Your task to perform on an android device: turn on location history Image 0: 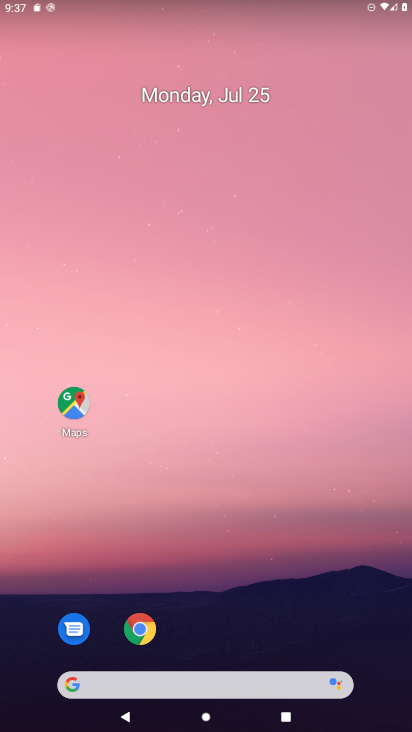
Step 0: click (72, 409)
Your task to perform on an android device: turn on location history Image 1: 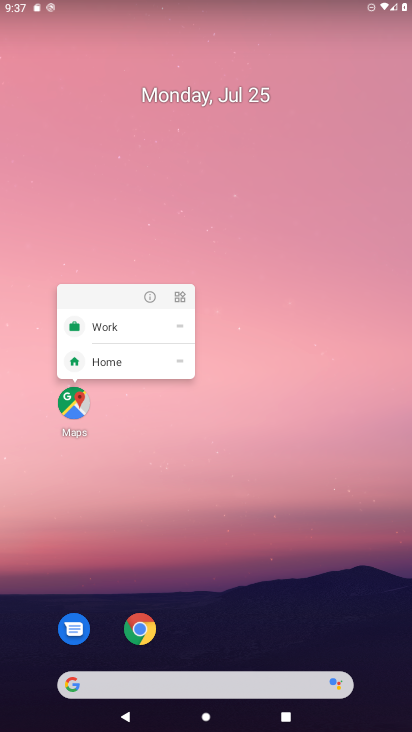
Step 1: click (72, 409)
Your task to perform on an android device: turn on location history Image 2: 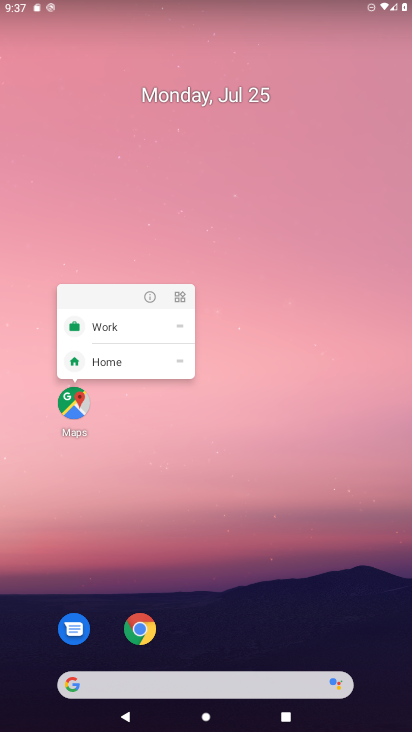
Step 2: click (72, 409)
Your task to perform on an android device: turn on location history Image 3: 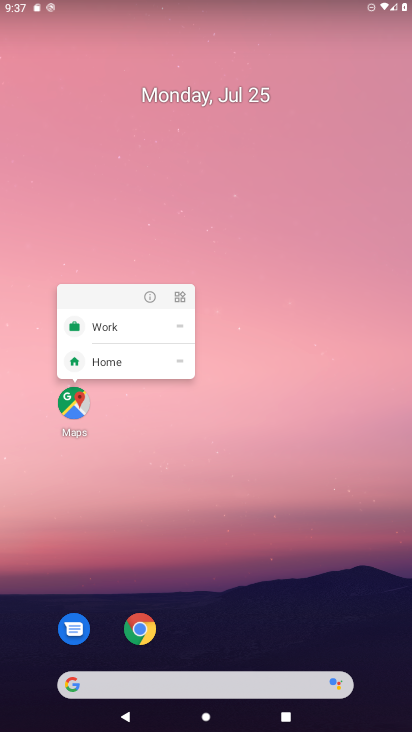
Step 3: click (72, 408)
Your task to perform on an android device: turn on location history Image 4: 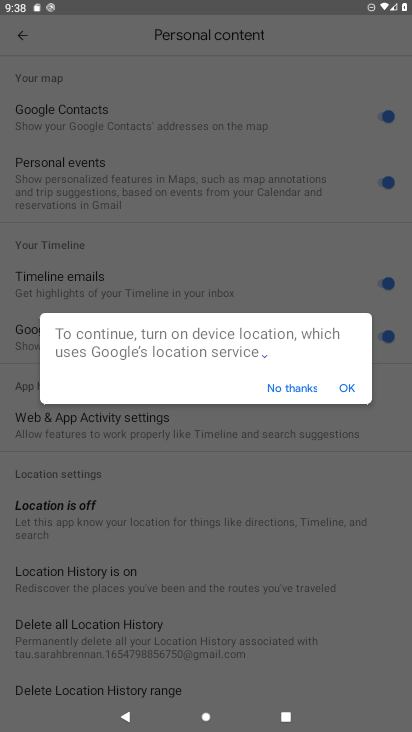
Step 4: click (280, 389)
Your task to perform on an android device: turn on location history Image 5: 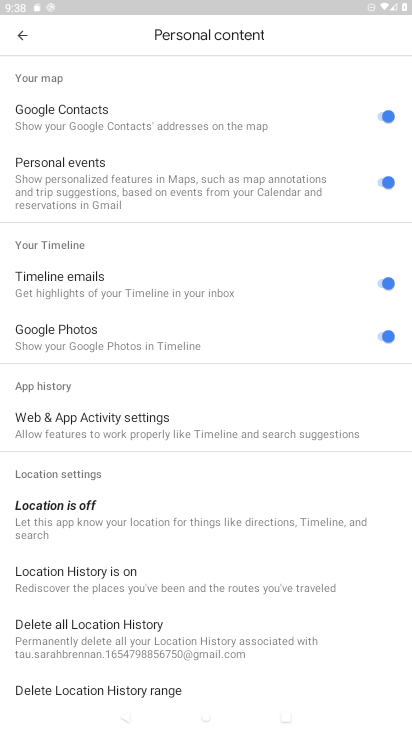
Step 5: click (68, 585)
Your task to perform on an android device: turn on location history Image 6: 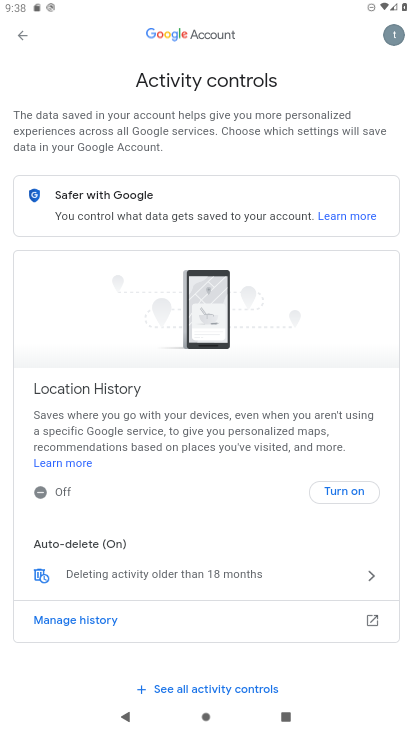
Step 6: click (332, 491)
Your task to perform on an android device: turn on location history Image 7: 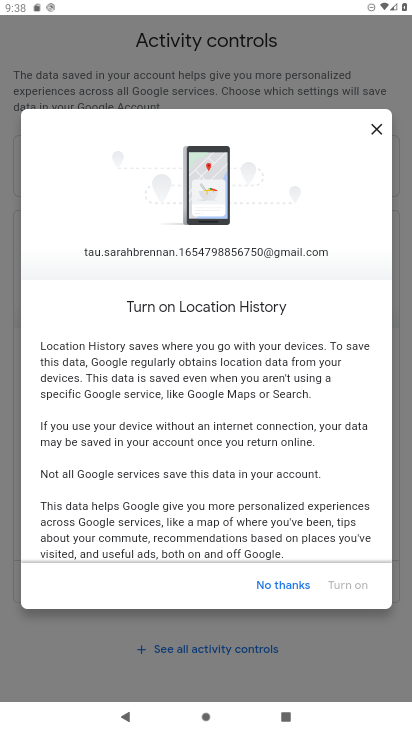
Step 7: drag from (219, 510) to (228, 207)
Your task to perform on an android device: turn on location history Image 8: 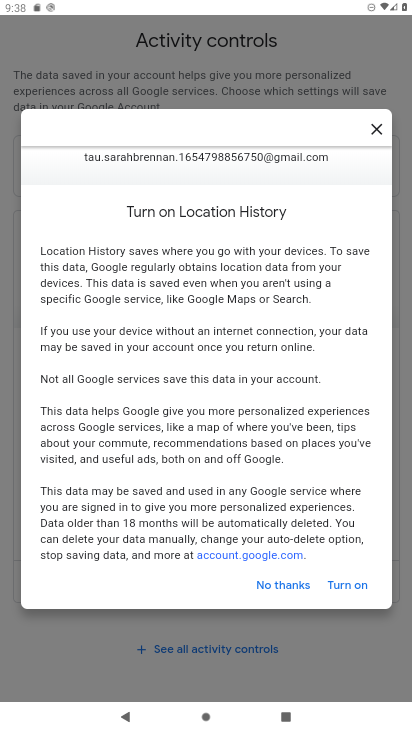
Step 8: drag from (217, 524) to (224, 335)
Your task to perform on an android device: turn on location history Image 9: 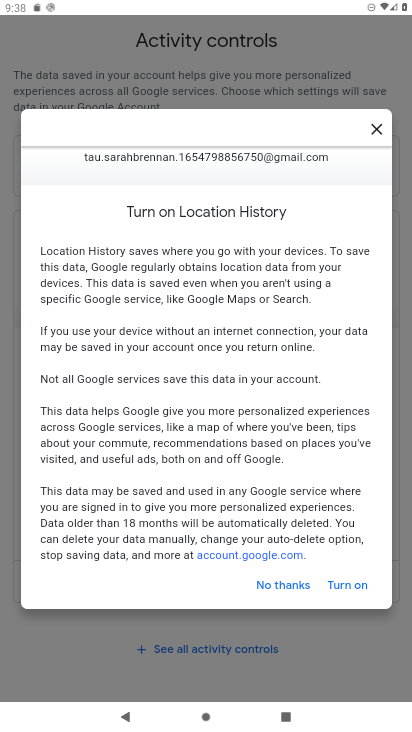
Step 9: click (343, 590)
Your task to perform on an android device: turn on location history Image 10: 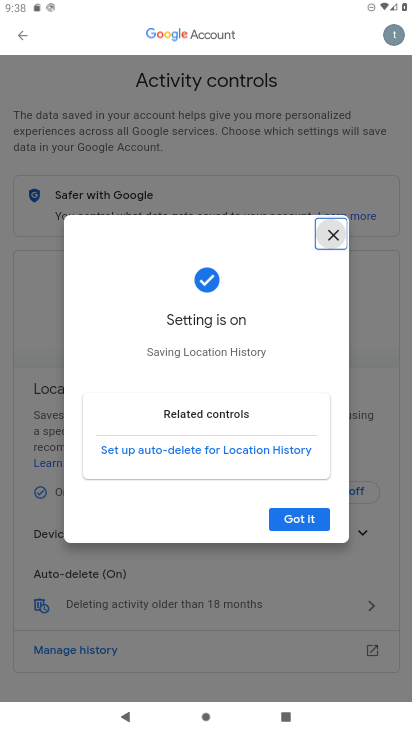
Step 10: click (290, 523)
Your task to perform on an android device: turn on location history Image 11: 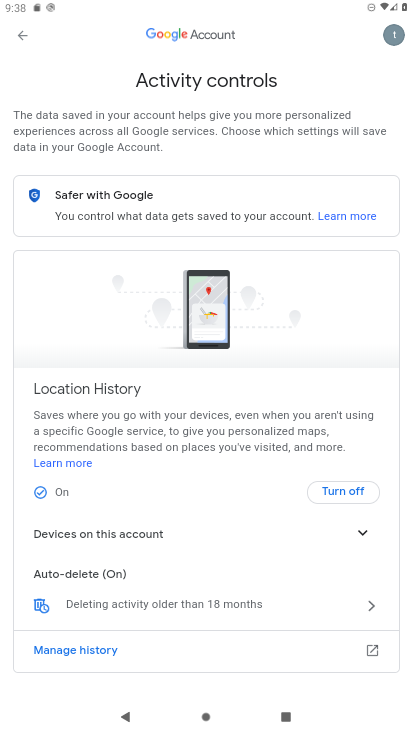
Step 11: task complete